Your task to perform on an android device: turn on wifi Image 0: 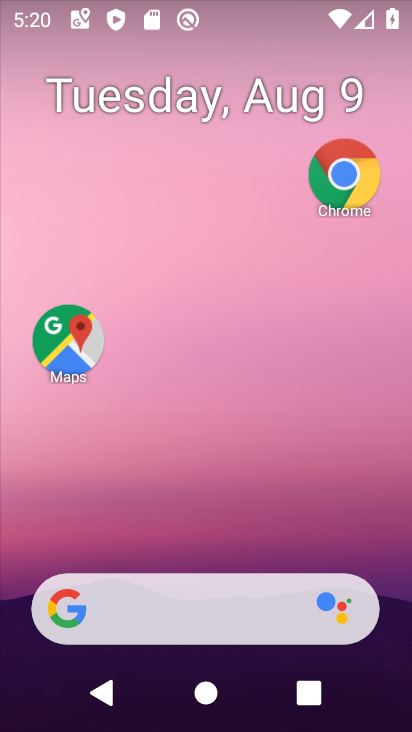
Step 0: drag from (228, 560) to (19, 224)
Your task to perform on an android device: turn on wifi Image 1: 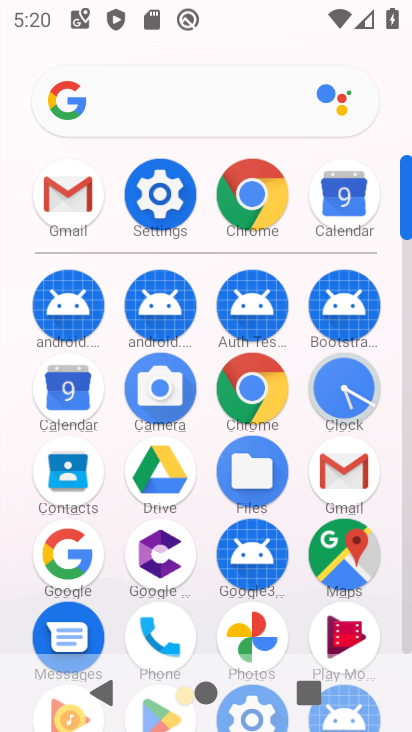
Step 1: click (159, 207)
Your task to perform on an android device: turn on wifi Image 2: 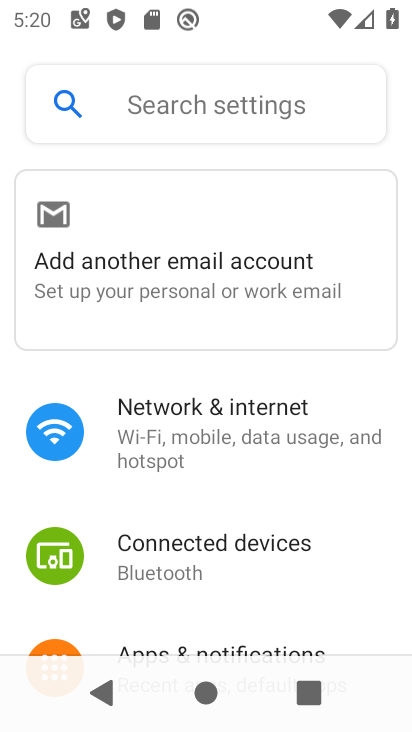
Step 2: click (213, 409)
Your task to perform on an android device: turn on wifi Image 3: 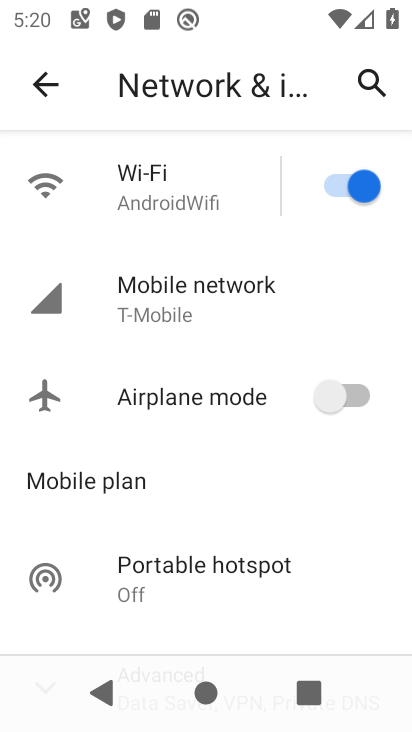
Step 3: click (190, 159)
Your task to perform on an android device: turn on wifi Image 4: 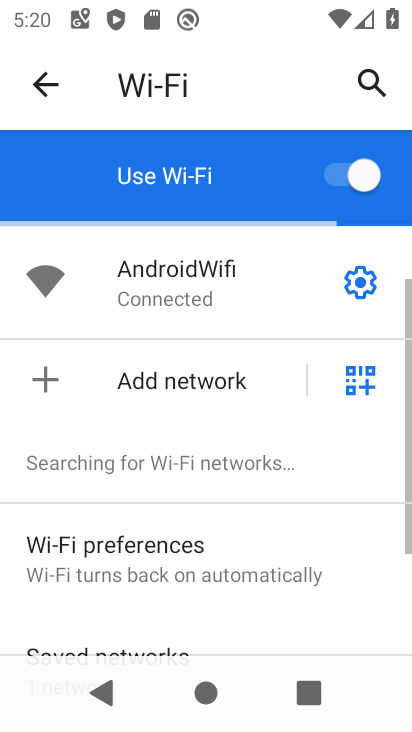
Step 4: task complete